Your task to perform on an android device: Empty the shopping cart on target. Add "jbl charge 4" to the cart on target, then select checkout. Image 0: 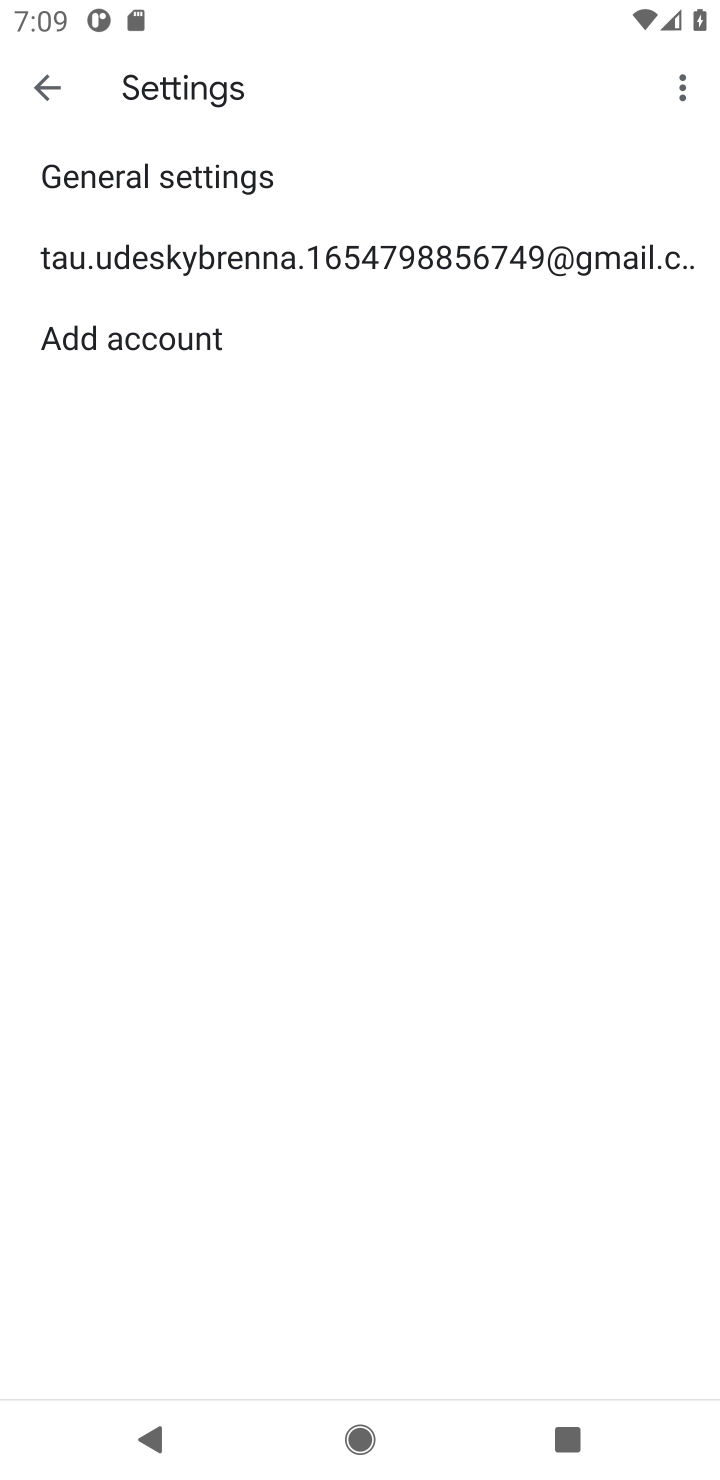
Step 0: press home button
Your task to perform on an android device: Empty the shopping cart on target. Add "jbl charge 4" to the cart on target, then select checkout. Image 1: 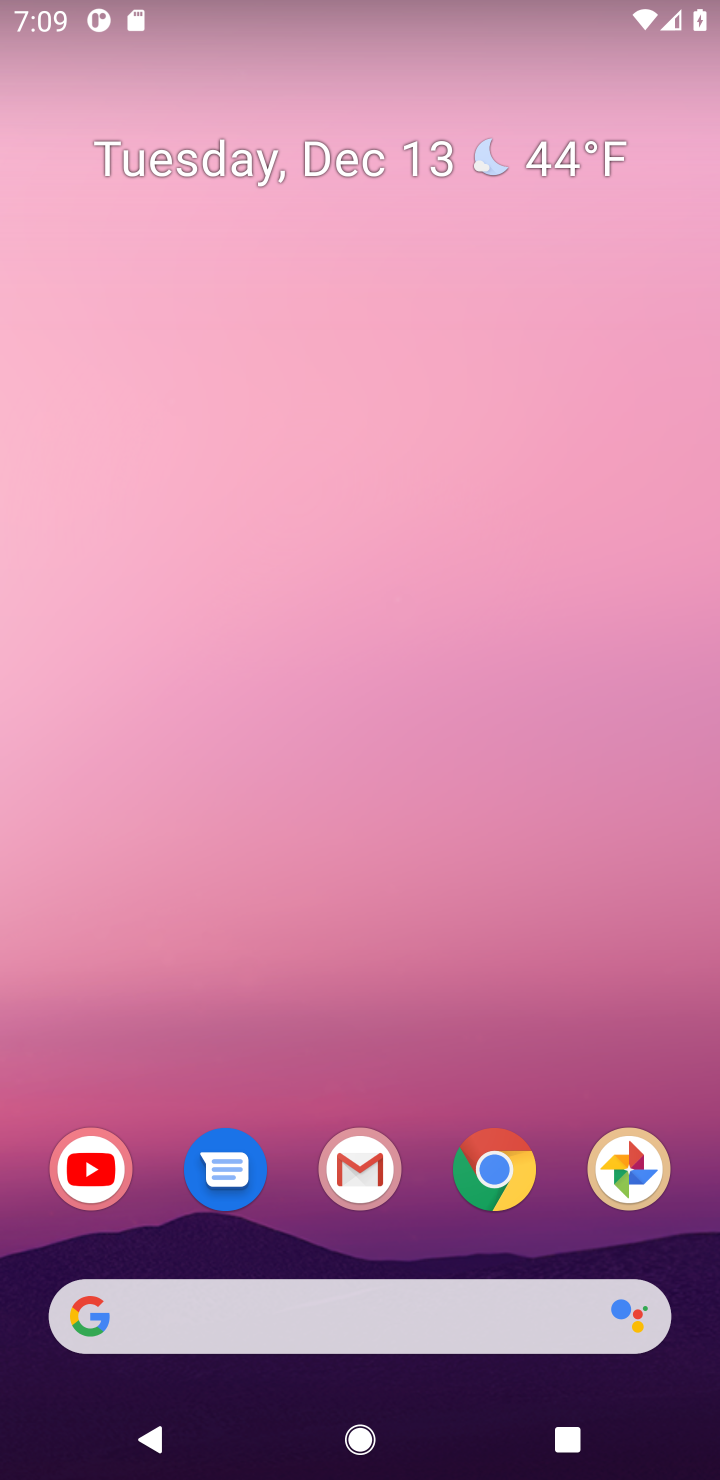
Step 1: click (468, 1196)
Your task to perform on an android device: Empty the shopping cart on target. Add "jbl charge 4" to the cart on target, then select checkout. Image 2: 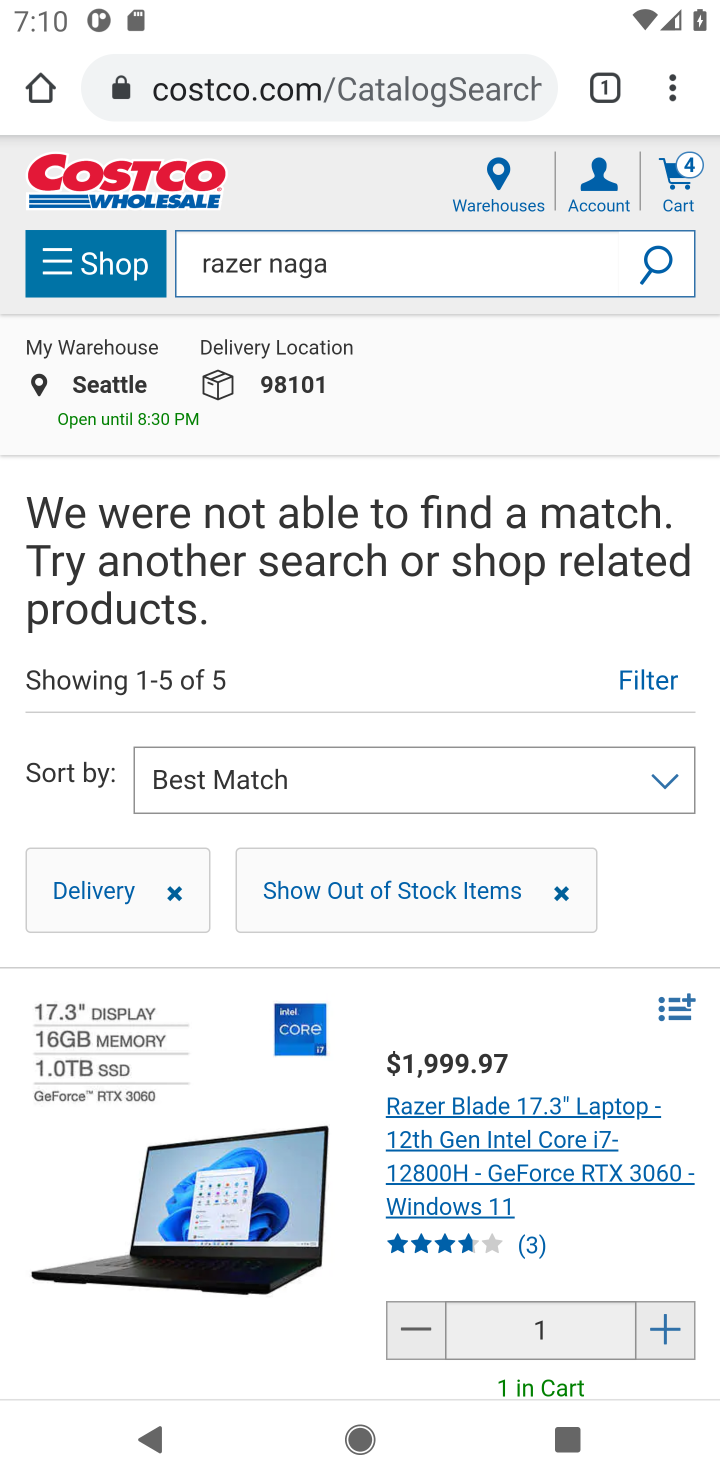
Step 2: task complete